Your task to perform on an android device: Open ESPN.com Image 0: 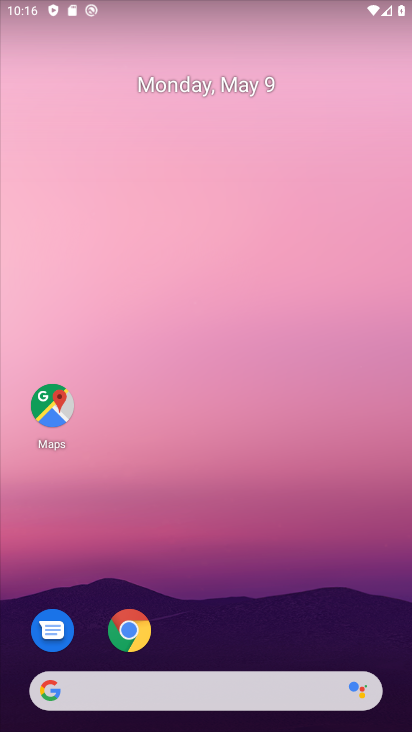
Step 0: click (139, 630)
Your task to perform on an android device: Open ESPN.com Image 1: 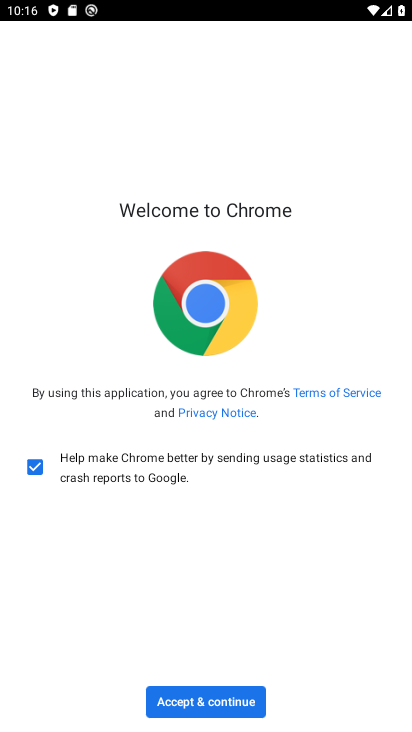
Step 1: click (204, 705)
Your task to perform on an android device: Open ESPN.com Image 2: 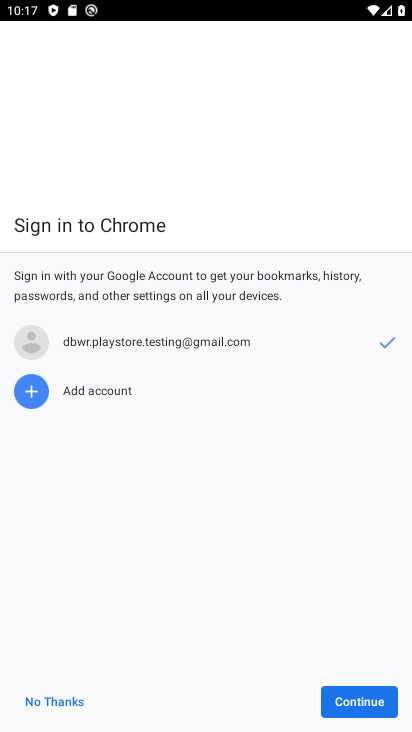
Step 2: click (367, 708)
Your task to perform on an android device: Open ESPN.com Image 3: 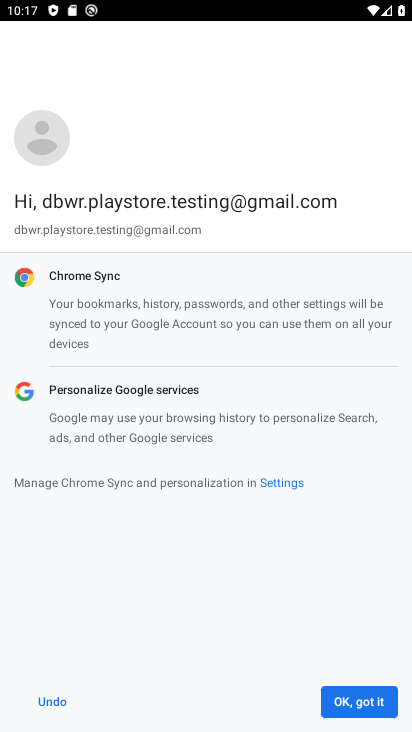
Step 3: click (343, 704)
Your task to perform on an android device: Open ESPN.com Image 4: 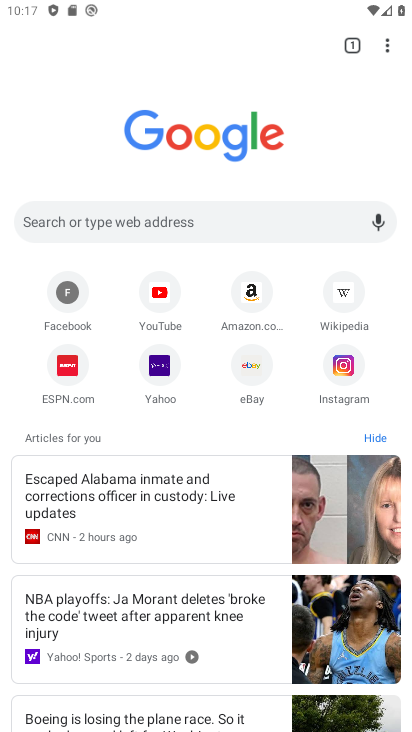
Step 4: click (69, 369)
Your task to perform on an android device: Open ESPN.com Image 5: 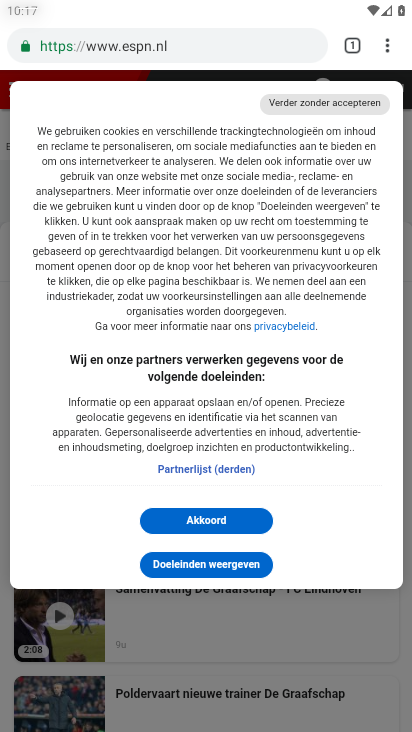
Step 5: task complete